Your task to perform on an android device: Clear the shopping cart on newegg. Search for "acer predator" on newegg, select the first entry, and add it to the cart. Image 0: 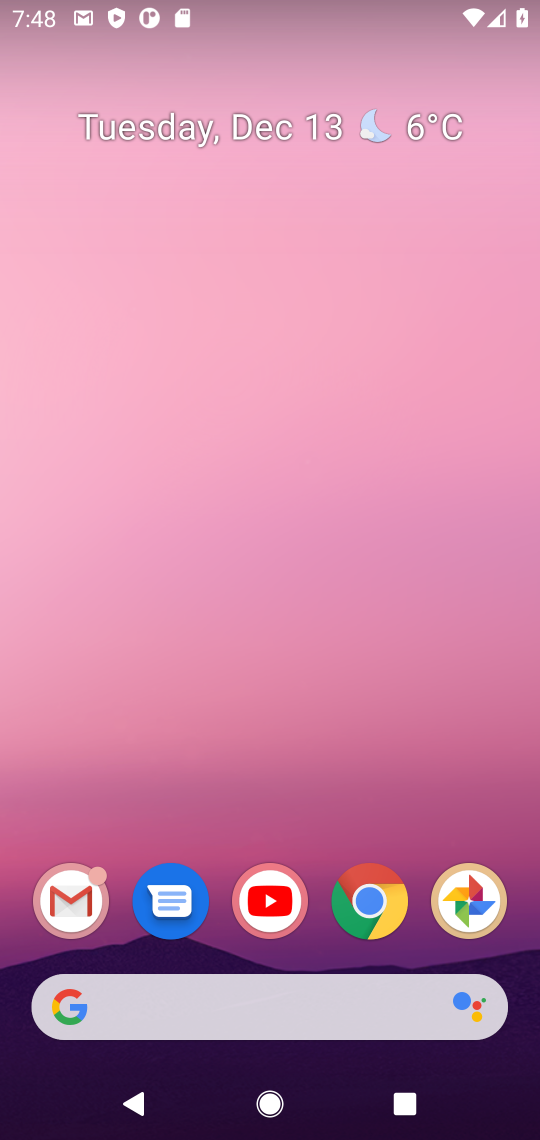
Step 0: click (345, 905)
Your task to perform on an android device: Clear the shopping cart on newegg. Search for "acer predator" on newegg, select the first entry, and add it to the cart. Image 1: 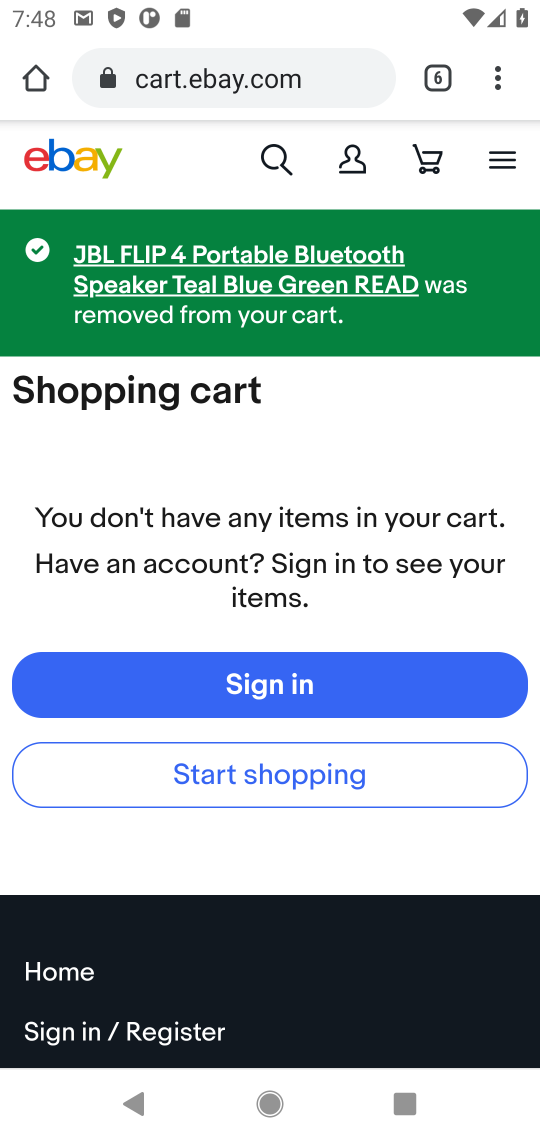
Step 1: click (440, 81)
Your task to perform on an android device: Clear the shopping cart on newegg. Search for "acer predator" on newegg, select the first entry, and add it to the cart. Image 2: 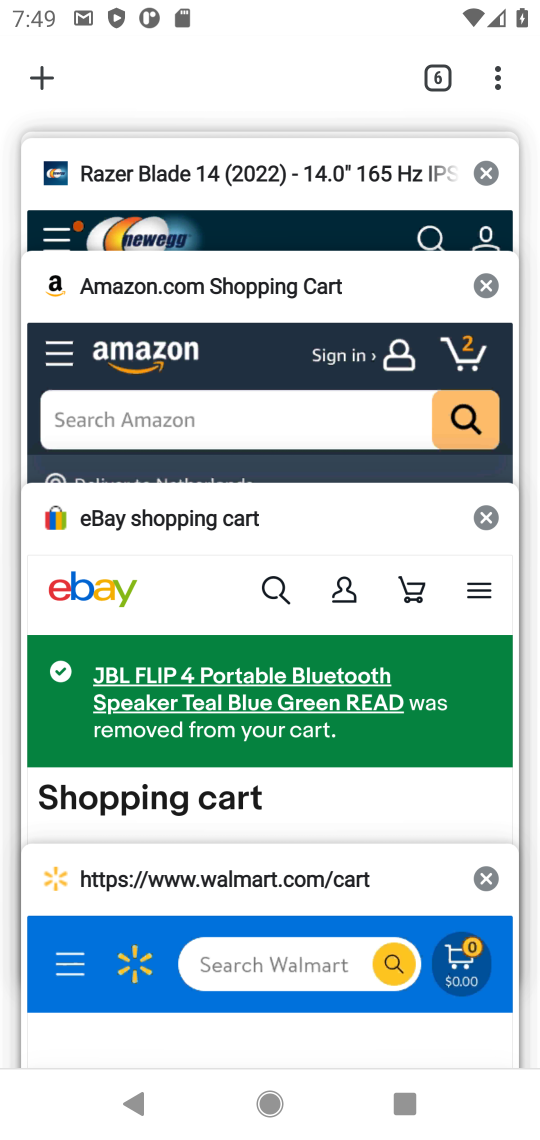
Step 2: click (312, 201)
Your task to perform on an android device: Clear the shopping cart on newegg. Search for "acer predator" on newegg, select the first entry, and add it to the cart. Image 3: 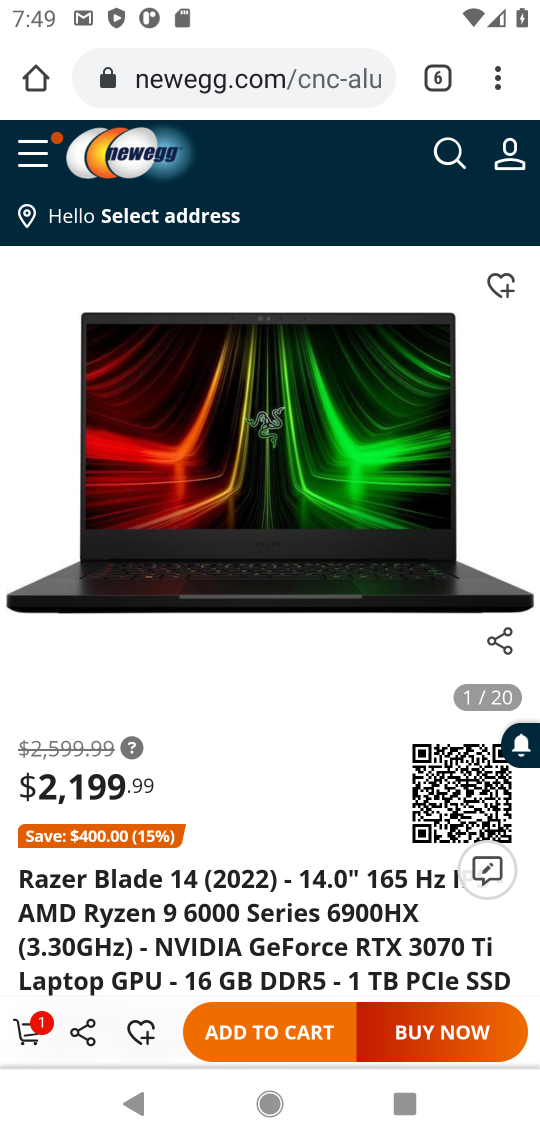
Step 3: click (22, 1026)
Your task to perform on an android device: Clear the shopping cart on newegg. Search for "acer predator" on newegg, select the first entry, and add it to the cart. Image 4: 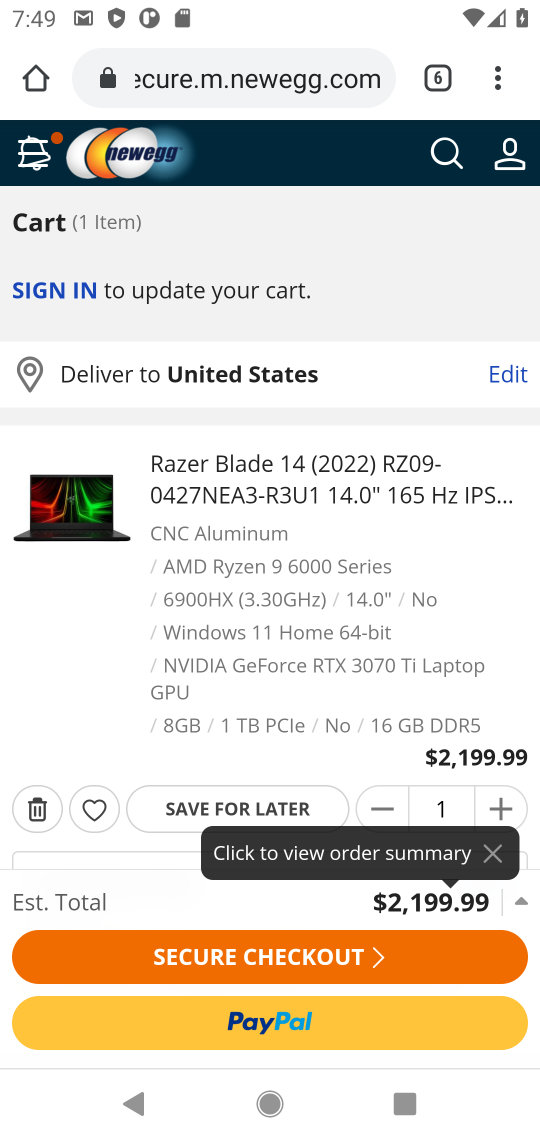
Step 4: click (28, 761)
Your task to perform on an android device: Clear the shopping cart on newegg. Search for "acer predator" on newegg, select the first entry, and add it to the cart. Image 5: 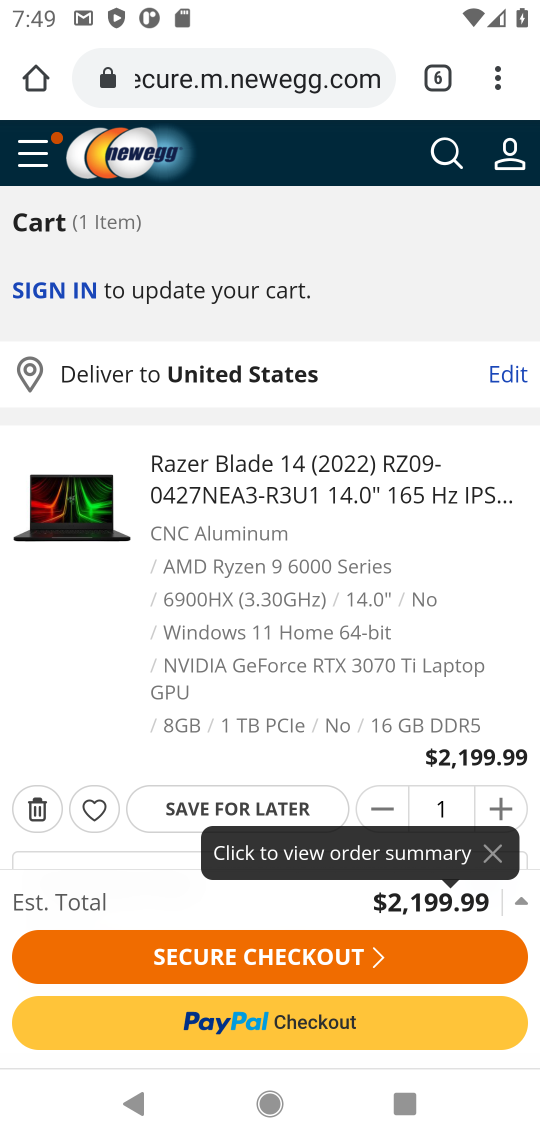
Step 5: click (35, 809)
Your task to perform on an android device: Clear the shopping cart on newegg. Search for "acer predator" on newegg, select the first entry, and add it to the cart. Image 6: 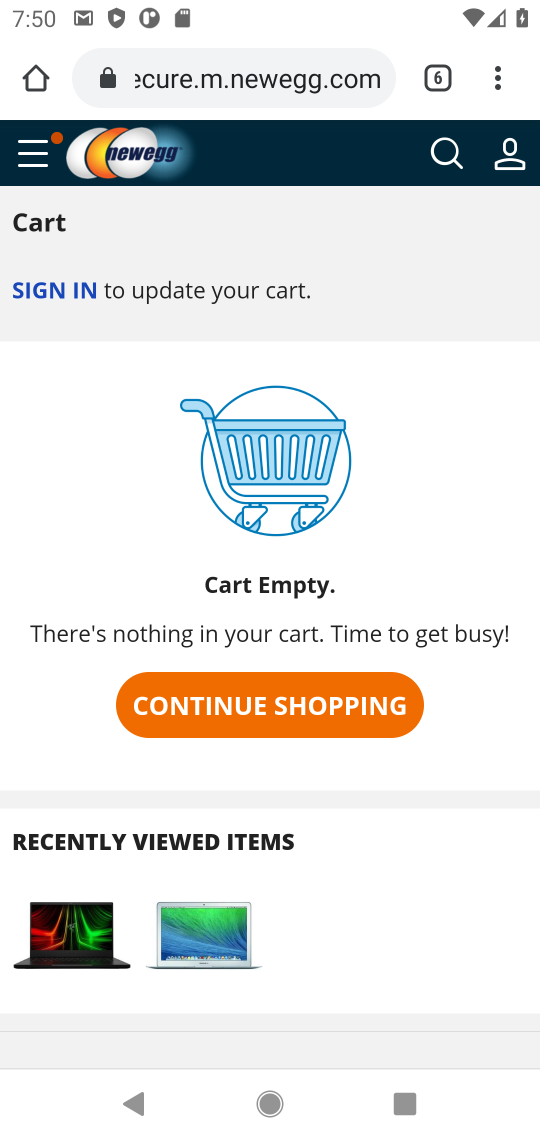
Step 6: click (455, 150)
Your task to perform on an android device: Clear the shopping cart on newegg. Search for "acer predator" on newegg, select the first entry, and add it to the cart. Image 7: 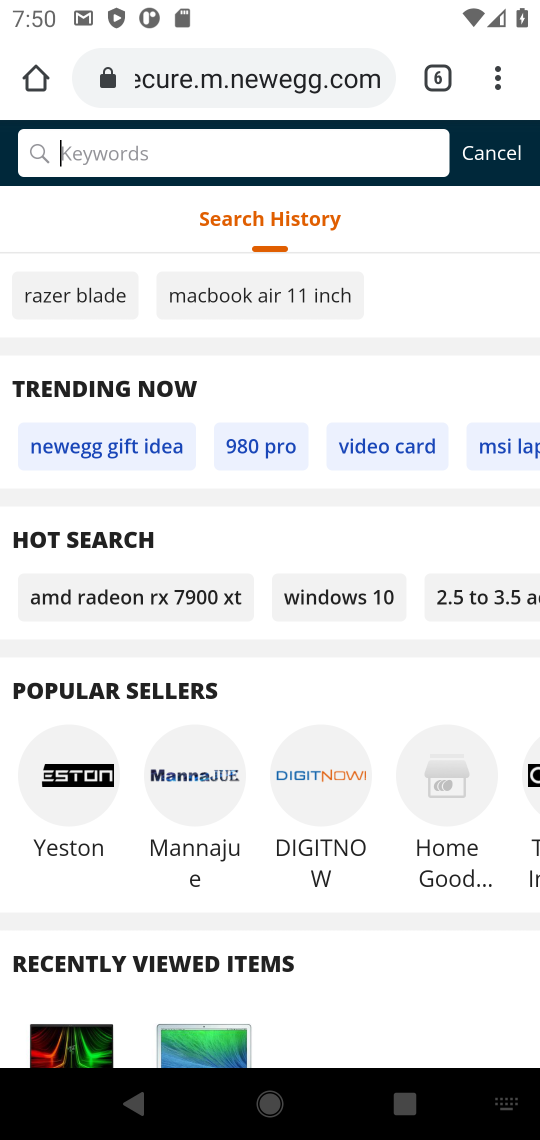
Step 7: type "acer predator"
Your task to perform on an android device: Clear the shopping cart on newegg. Search for "acer predator" on newegg, select the first entry, and add it to the cart. Image 8: 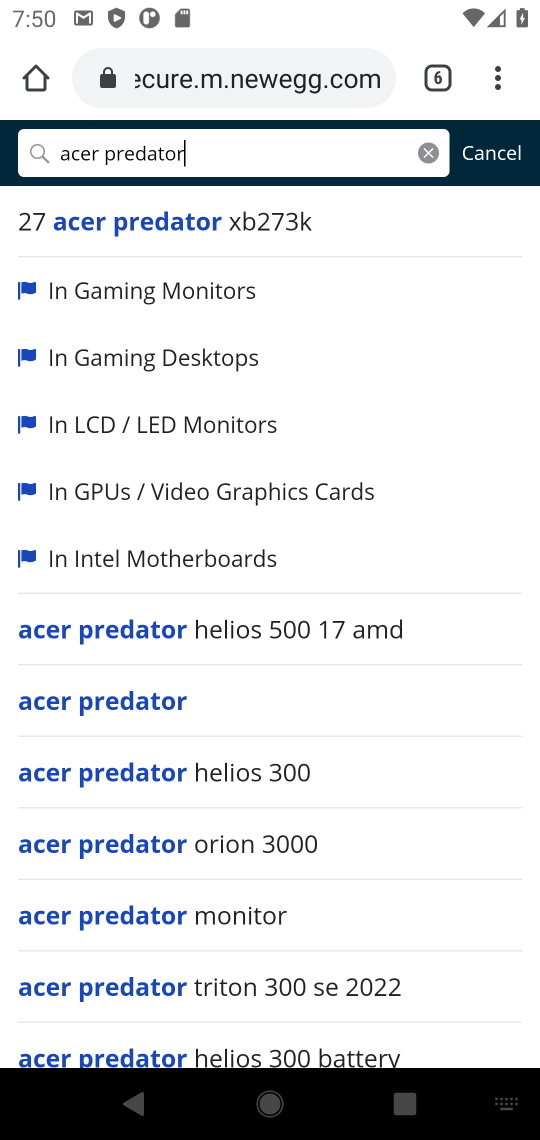
Step 8: click (140, 698)
Your task to perform on an android device: Clear the shopping cart on newegg. Search for "acer predator" on newegg, select the first entry, and add it to the cart. Image 9: 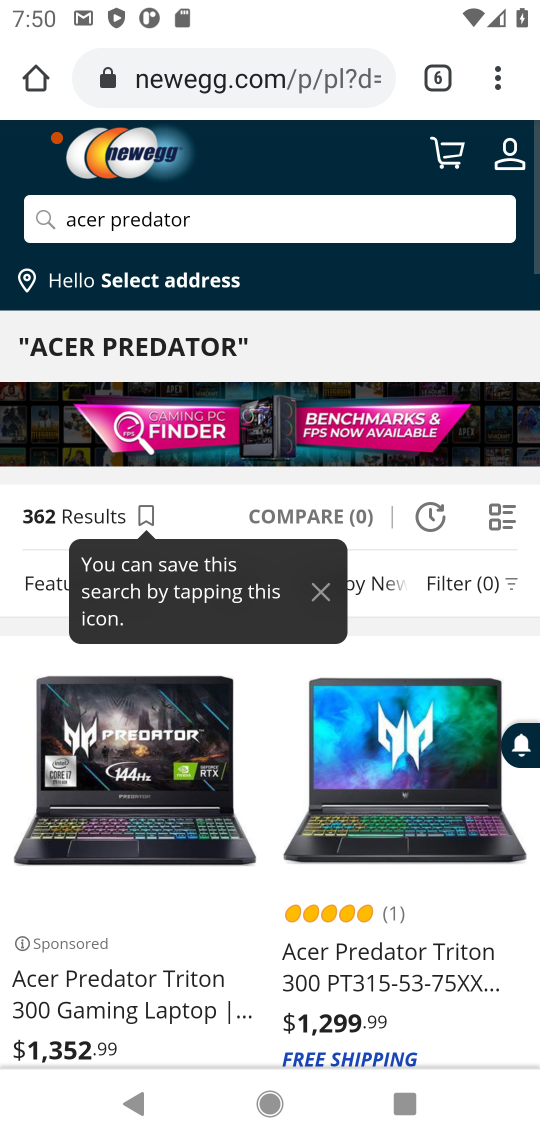
Step 9: click (129, 1012)
Your task to perform on an android device: Clear the shopping cart on newegg. Search for "acer predator" on newegg, select the first entry, and add it to the cart. Image 10: 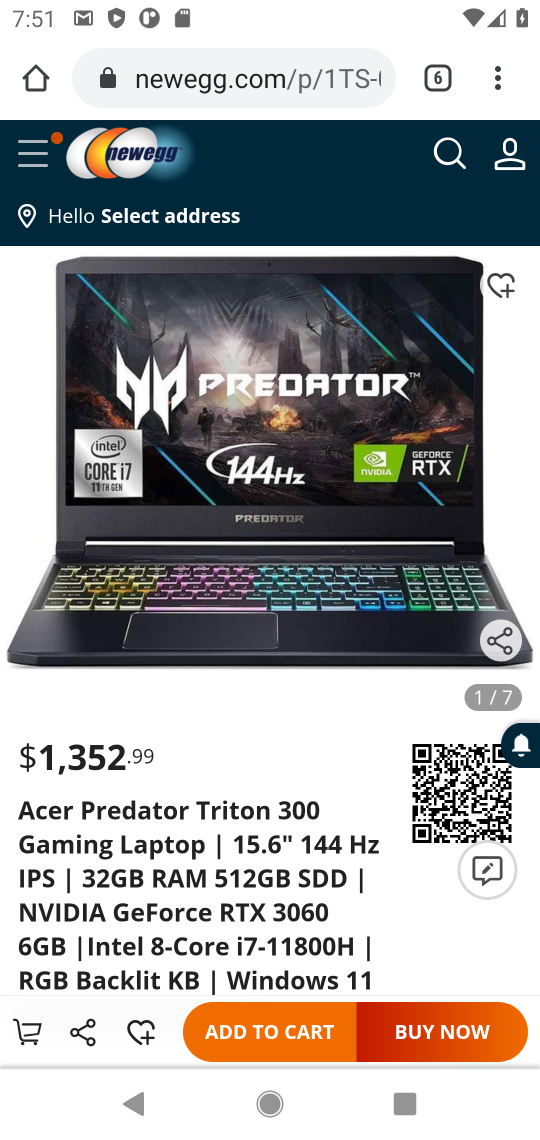
Step 10: click (234, 1027)
Your task to perform on an android device: Clear the shopping cart on newegg. Search for "acer predator" on newegg, select the first entry, and add it to the cart. Image 11: 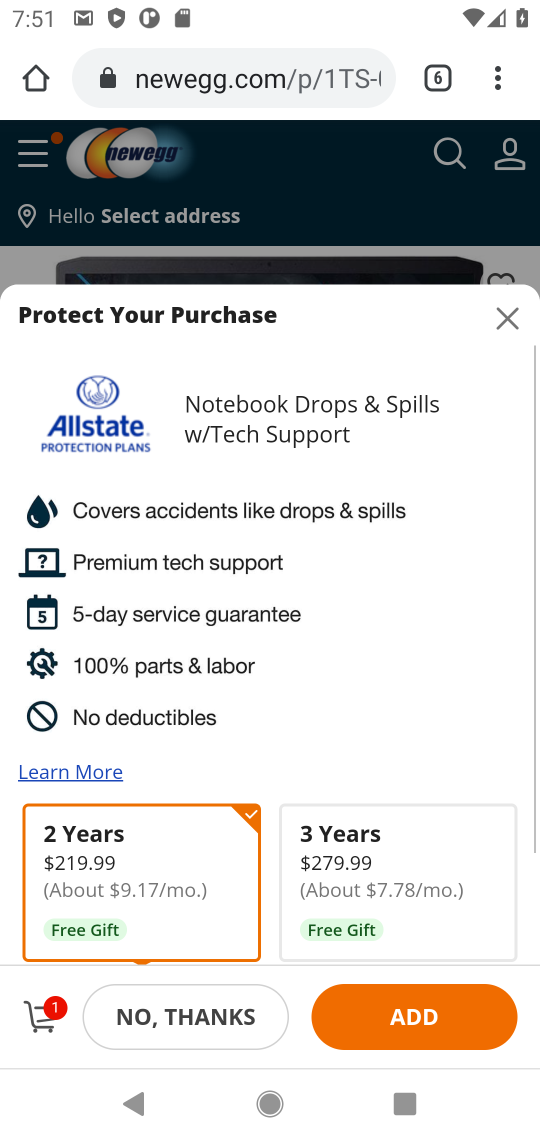
Step 11: task complete